Your task to perform on an android device: Open Google Maps and go to "Timeline" Image 0: 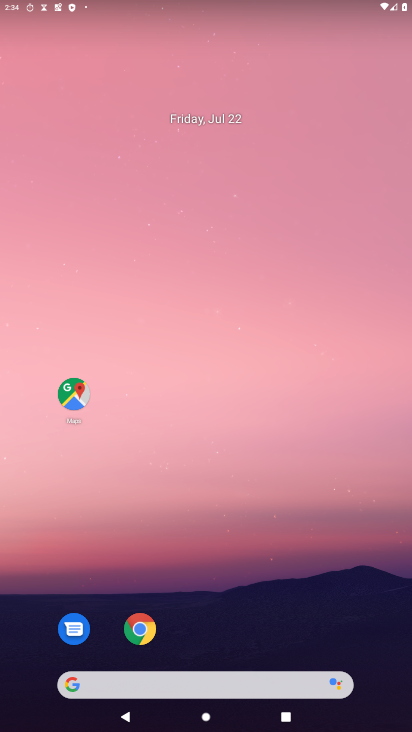
Step 0: drag from (298, 550) to (197, 33)
Your task to perform on an android device: Open Google Maps and go to "Timeline" Image 1: 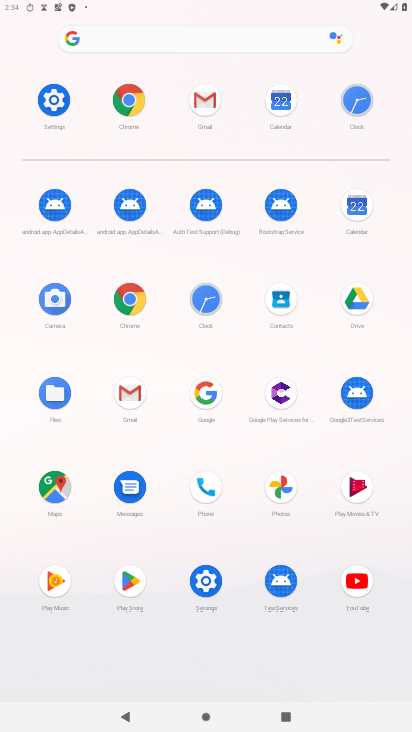
Step 1: click (42, 487)
Your task to perform on an android device: Open Google Maps and go to "Timeline" Image 2: 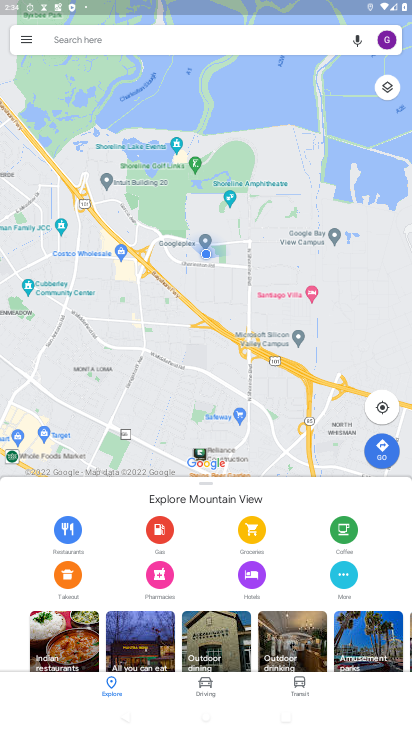
Step 2: click (24, 36)
Your task to perform on an android device: Open Google Maps and go to "Timeline" Image 3: 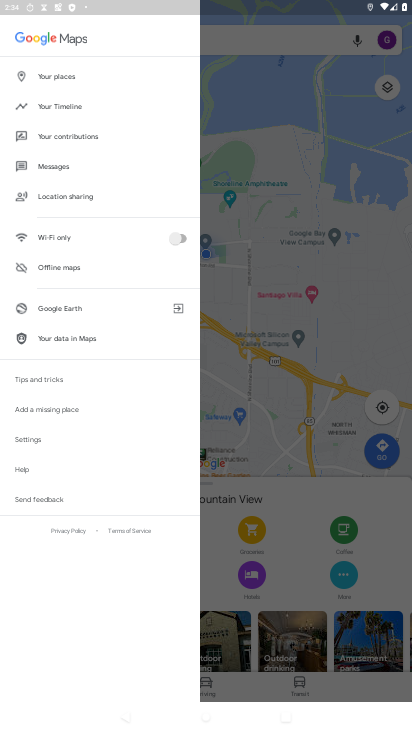
Step 3: click (63, 102)
Your task to perform on an android device: Open Google Maps and go to "Timeline" Image 4: 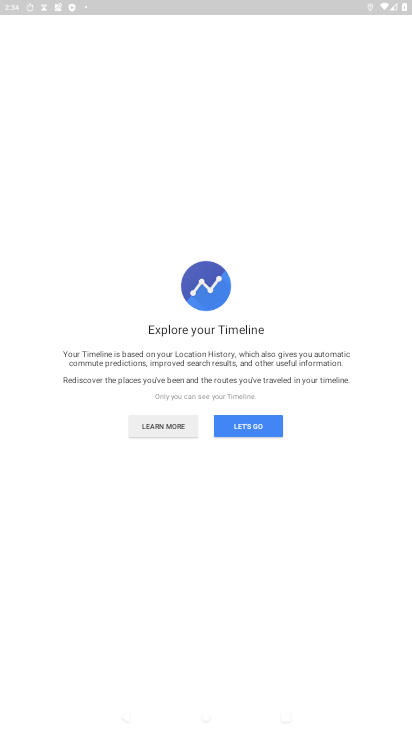
Step 4: task complete